Your task to perform on an android device: turn on improve location accuracy Image 0: 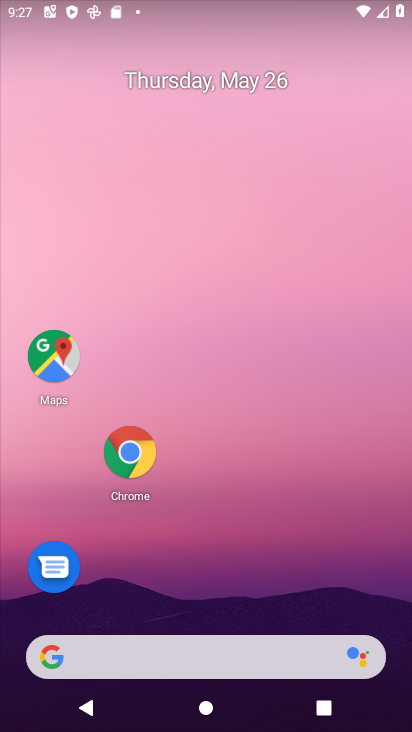
Step 0: press home button
Your task to perform on an android device: turn on improve location accuracy Image 1: 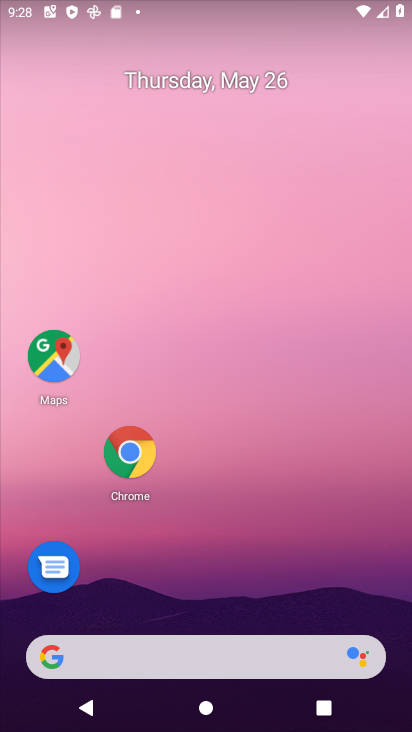
Step 1: drag from (149, 658) to (375, 72)
Your task to perform on an android device: turn on improve location accuracy Image 2: 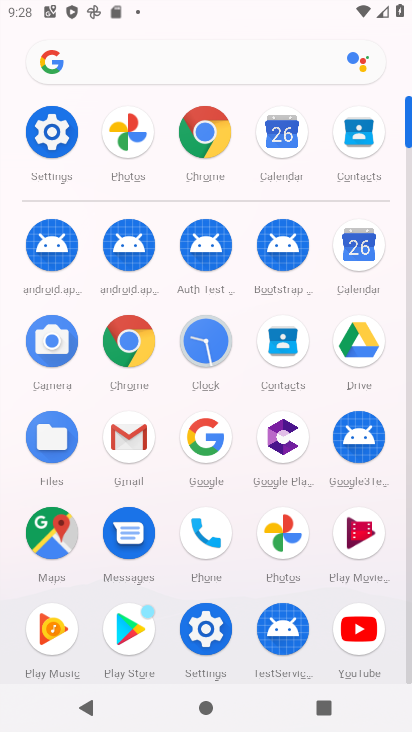
Step 2: click (49, 137)
Your task to perform on an android device: turn on improve location accuracy Image 3: 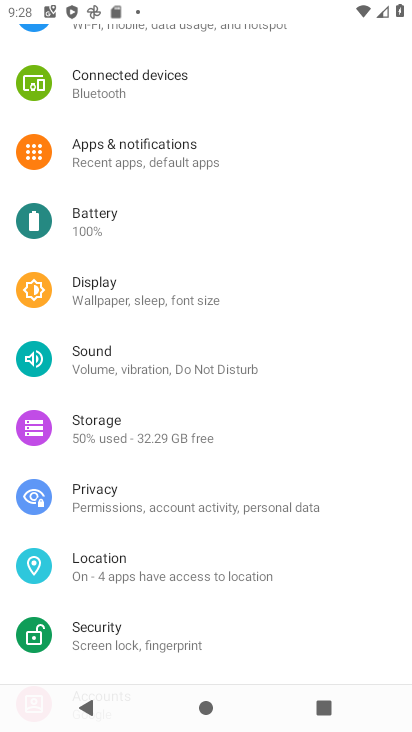
Step 3: click (161, 570)
Your task to perform on an android device: turn on improve location accuracy Image 4: 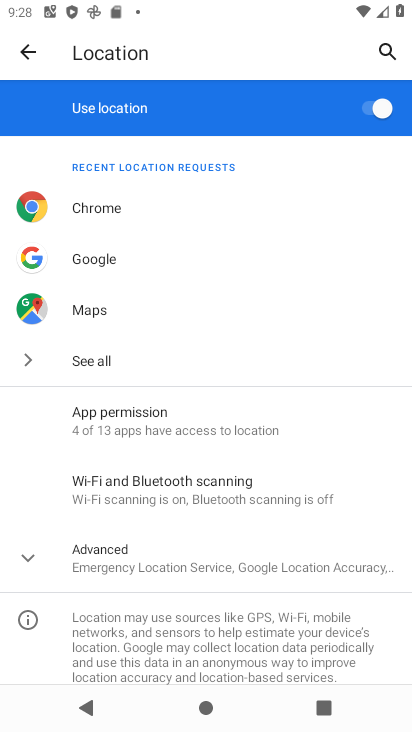
Step 4: click (148, 557)
Your task to perform on an android device: turn on improve location accuracy Image 5: 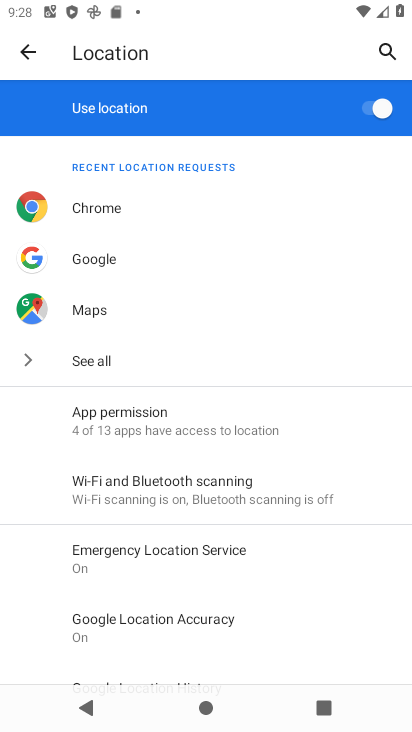
Step 5: click (191, 618)
Your task to perform on an android device: turn on improve location accuracy Image 6: 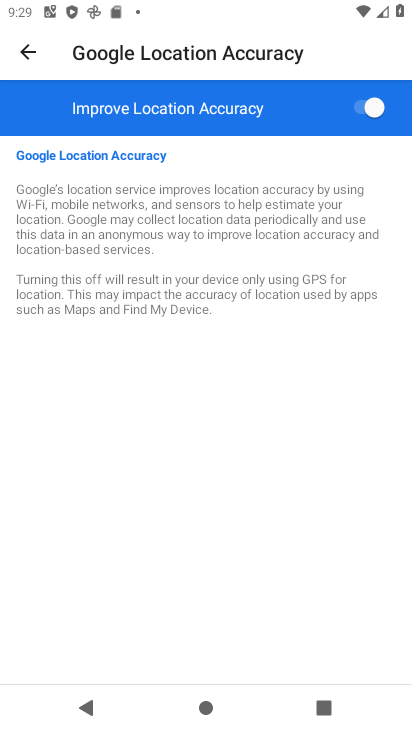
Step 6: task complete